Your task to perform on an android device: change the clock display to analog Image 0: 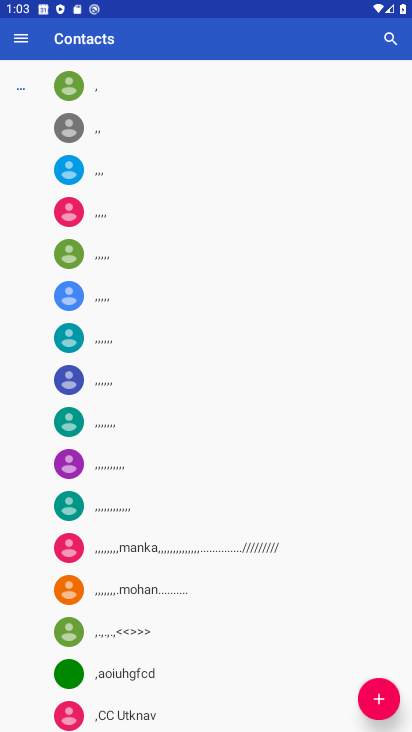
Step 0: press home button
Your task to perform on an android device: change the clock display to analog Image 1: 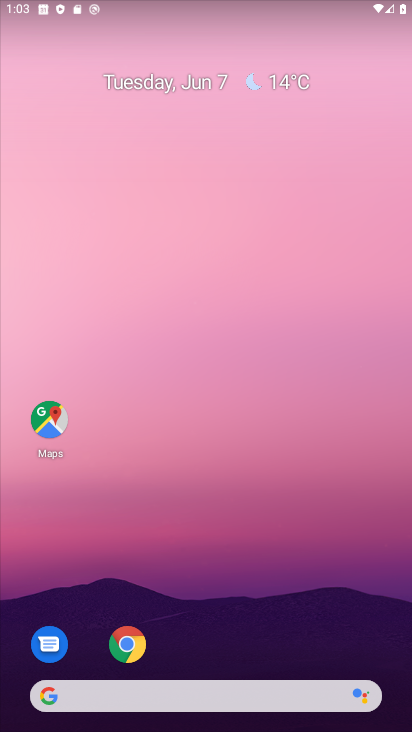
Step 1: drag from (157, 726) to (157, 119)
Your task to perform on an android device: change the clock display to analog Image 2: 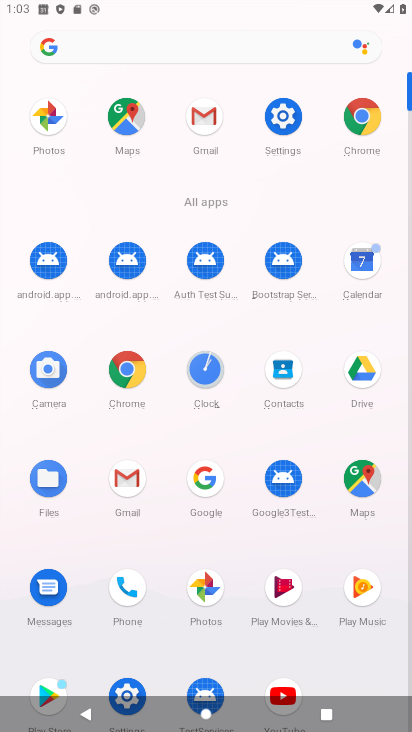
Step 2: click (199, 377)
Your task to perform on an android device: change the clock display to analog Image 3: 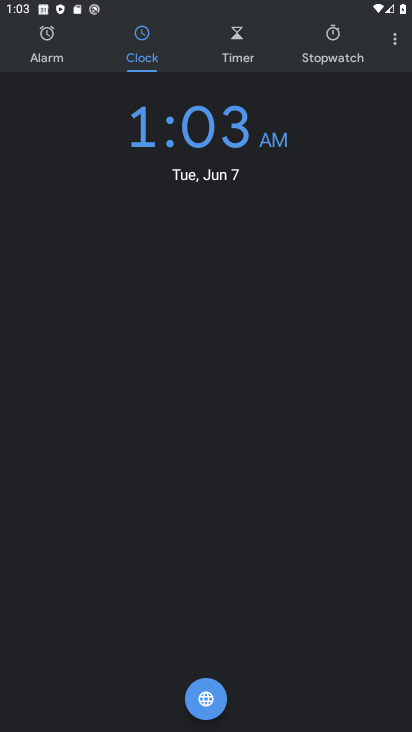
Step 3: click (397, 35)
Your task to perform on an android device: change the clock display to analog Image 4: 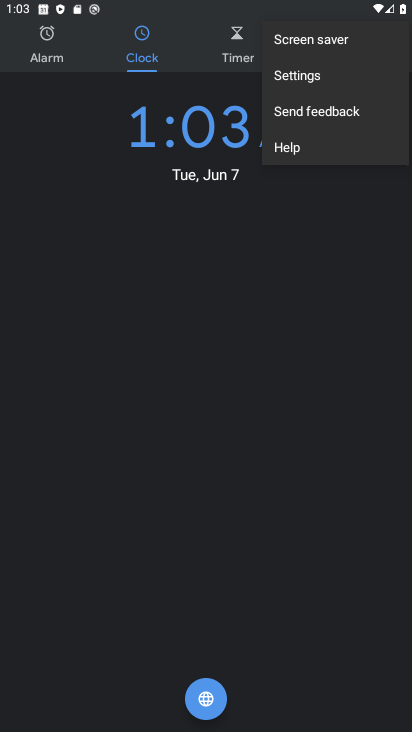
Step 4: click (305, 92)
Your task to perform on an android device: change the clock display to analog Image 5: 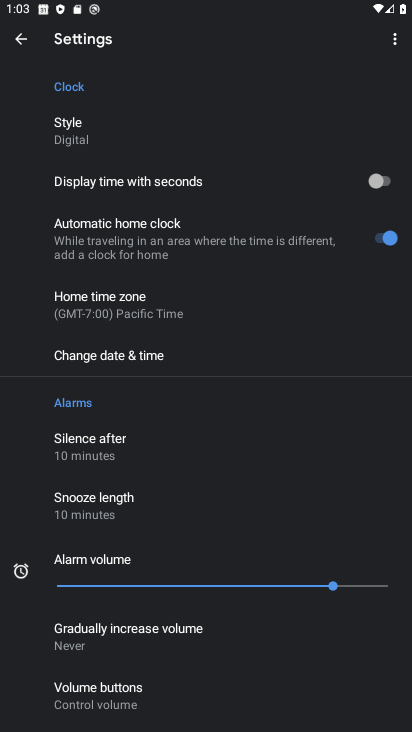
Step 5: click (84, 141)
Your task to perform on an android device: change the clock display to analog Image 6: 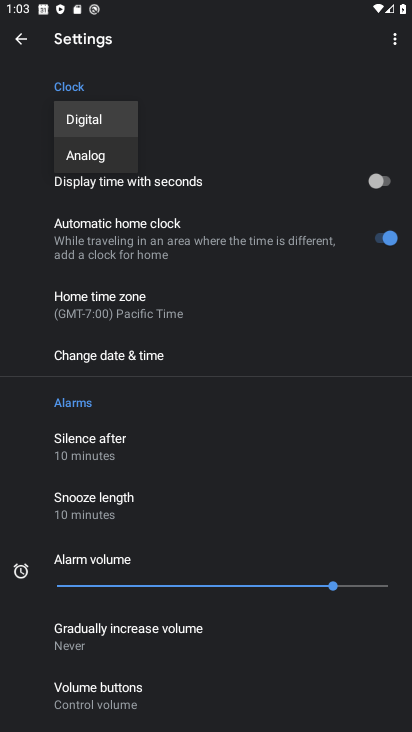
Step 6: click (106, 160)
Your task to perform on an android device: change the clock display to analog Image 7: 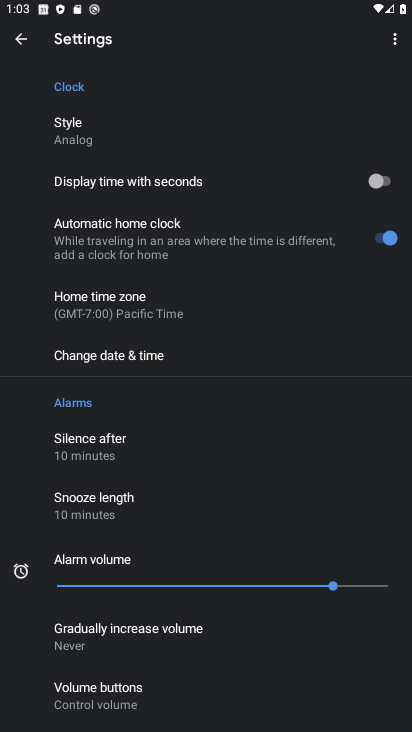
Step 7: task complete